Your task to perform on an android device: turn off improve location accuracy Image 0: 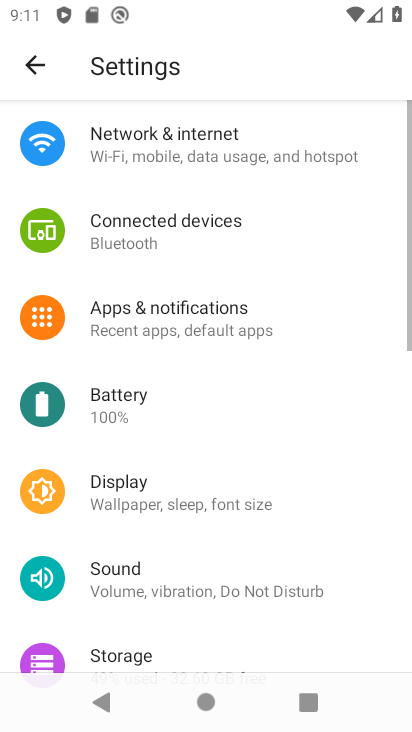
Step 0: press home button
Your task to perform on an android device: turn off improve location accuracy Image 1: 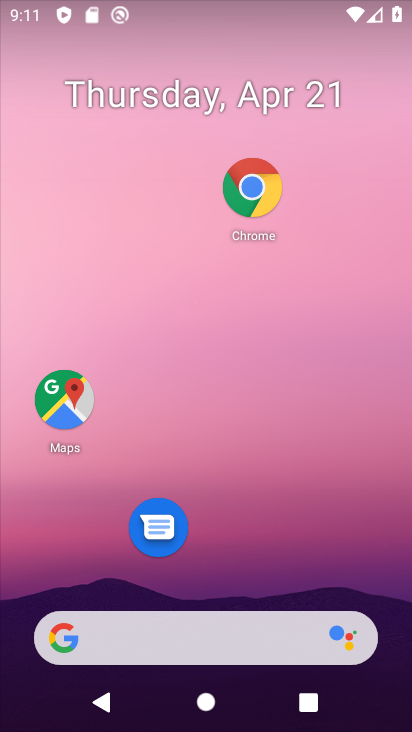
Step 1: drag from (262, 633) to (329, 89)
Your task to perform on an android device: turn off improve location accuracy Image 2: 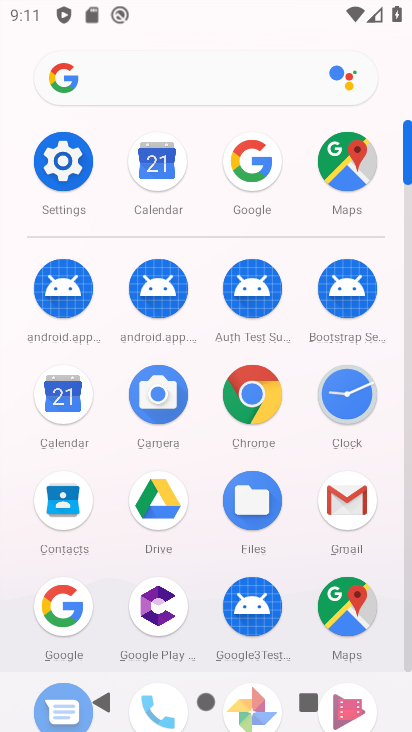
Step 2: click (79, 170)
Your task to perform on an android device: turn off improve location accuracy Image 3: 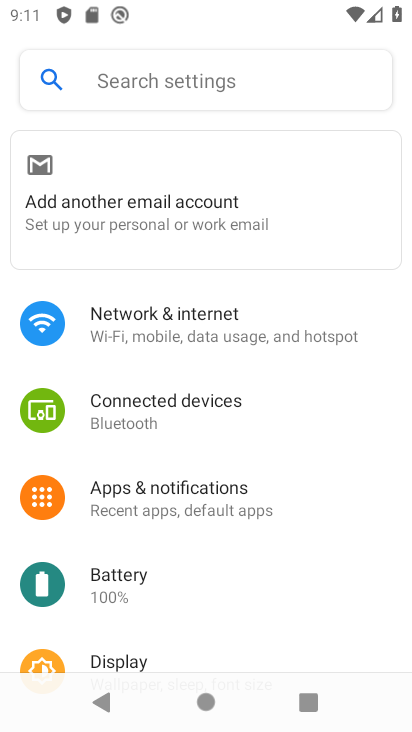
Step 3: drag from (270, 434) to (338, 113)
Your task to perform on an android device: turn off improve location accuracy Image 4: 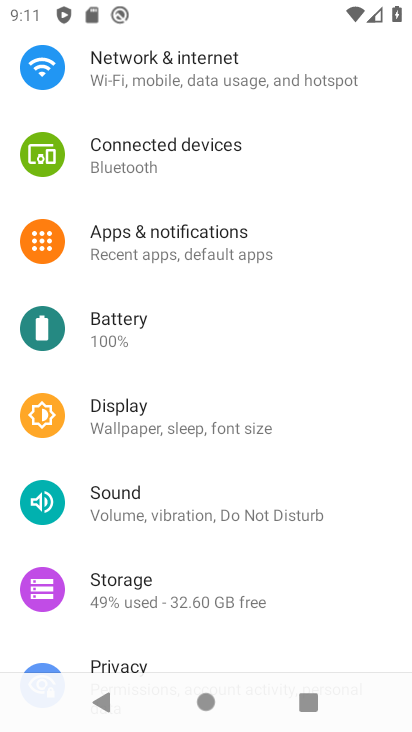
Step 4: drag from (261, 541) to (336, 195)
Your task to perform on an android device: turn off improve location accuracy Image 5: 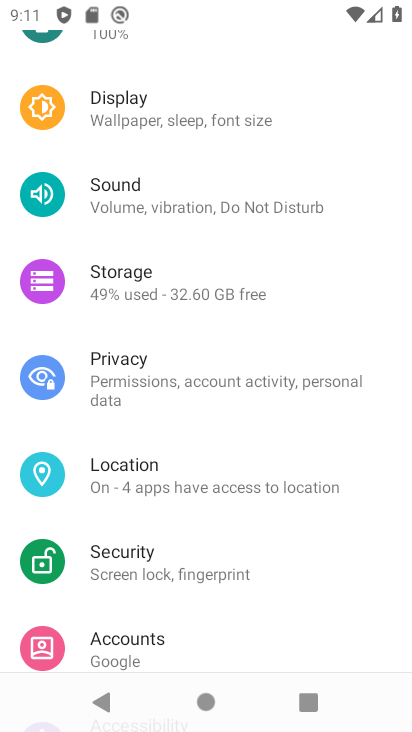
Step 5: click (202, 479)
Your task to perform on an android device: turn off improve location accuracy Image 6: 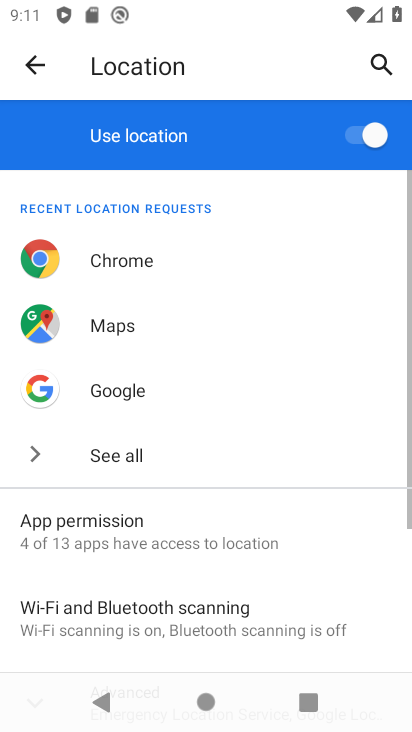
Step 6: drag from (220, 479) to (266, 296)
Your task to perform on an android device: turn off improve location accuracy Image 7: 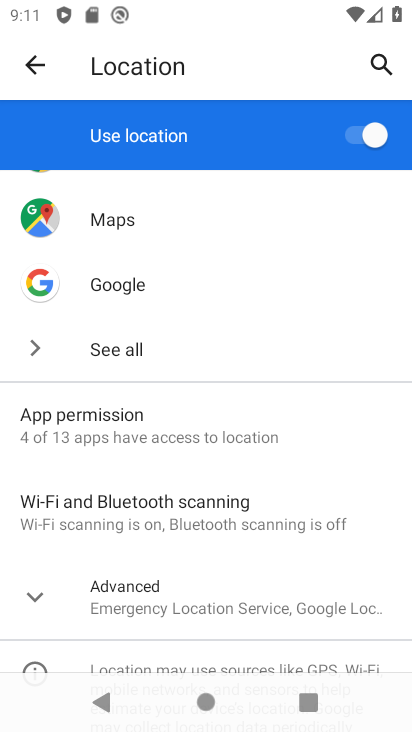
Step 7: click (230, 585)
Your task to perform on an android device: turn off improve location accuracy Image 8: 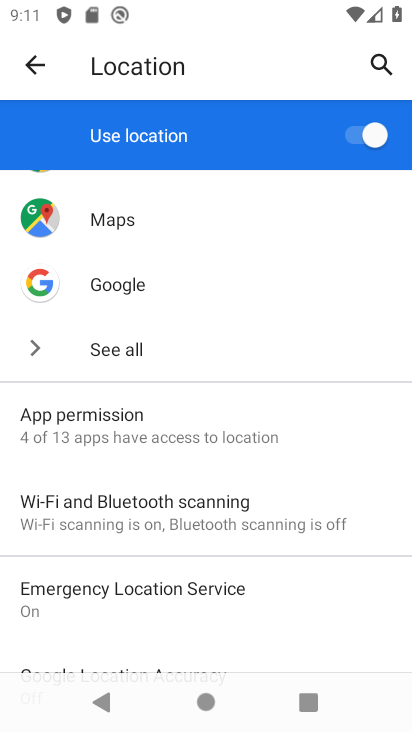
Step 8: drag from (251, 526) to (299, 314)
Your task to perform on an android device: turn off improve location accuracy Image 9: 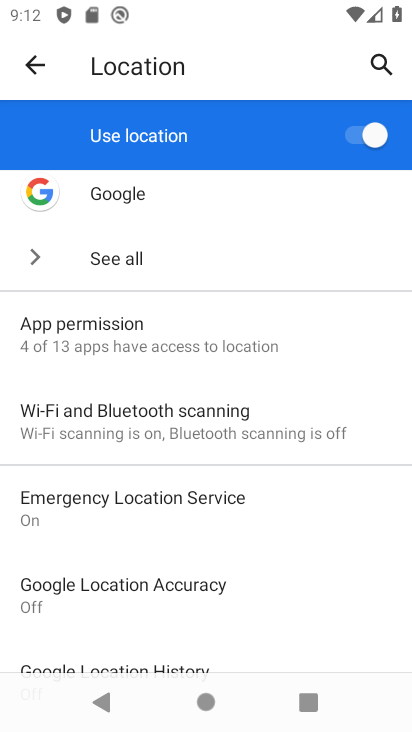
Step 9: click (222, 598)
Your task to perform on an android device: turn off improve location accuracy Image 10: 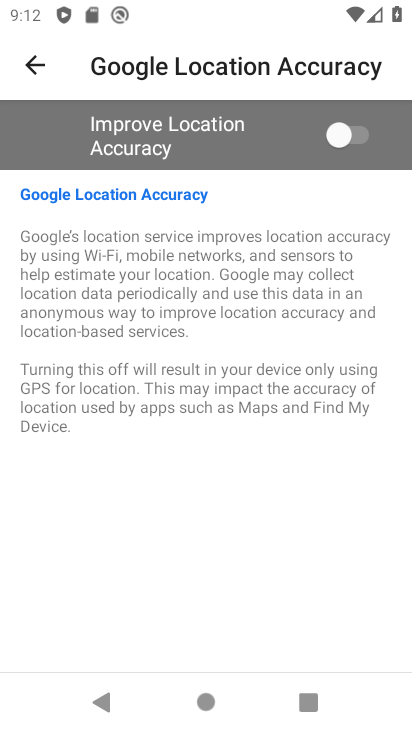
Step 10: task complete